Your task to perform on an android device: turn on the 24-hour format for clock Image 0: 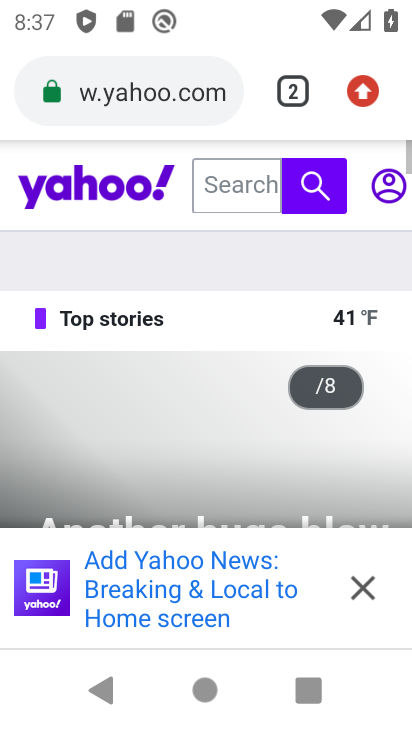
Step 0: press home button
Your task to perform on an android device: turn on the 24-hour format for clock Image 1: 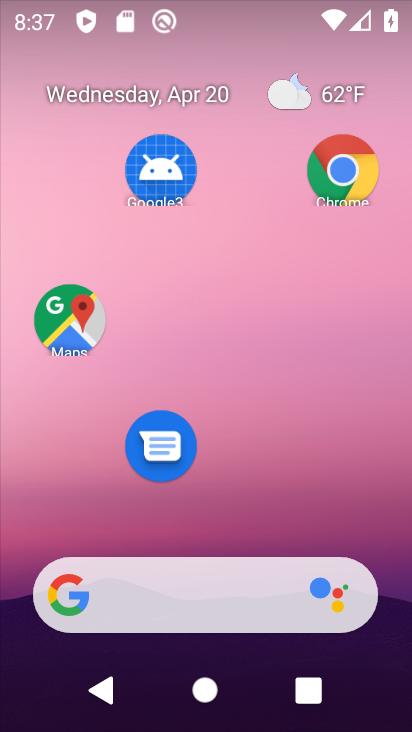
Step 1: drag from (227, 506) to (208, 68)
Your task to perform on an android device: turn on the 24-hour format for clock Image 2: 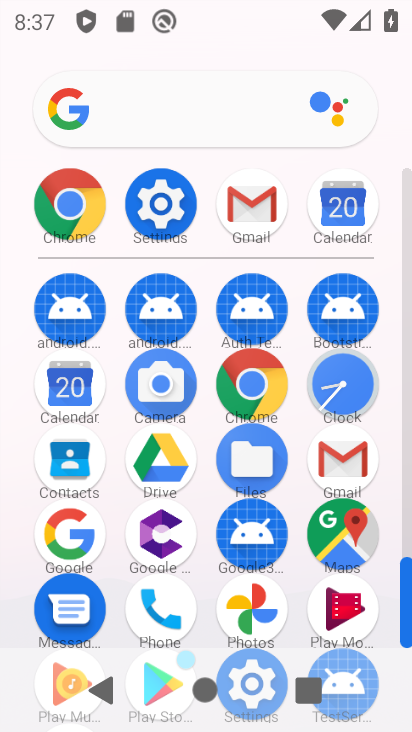
Step 2: click (343, 391)
Your task to perform on an android device: turn on the 24-hour format for clock Image 3: 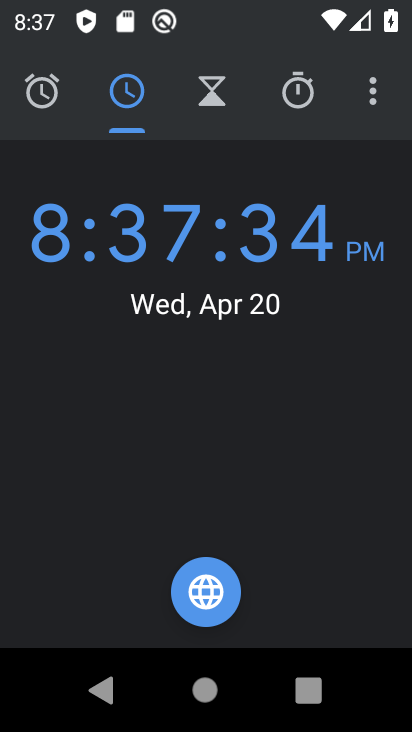
Step 3: click (370, 90)
Your task to perform on an android device: turn on the 24-hour format for clock Image 4: 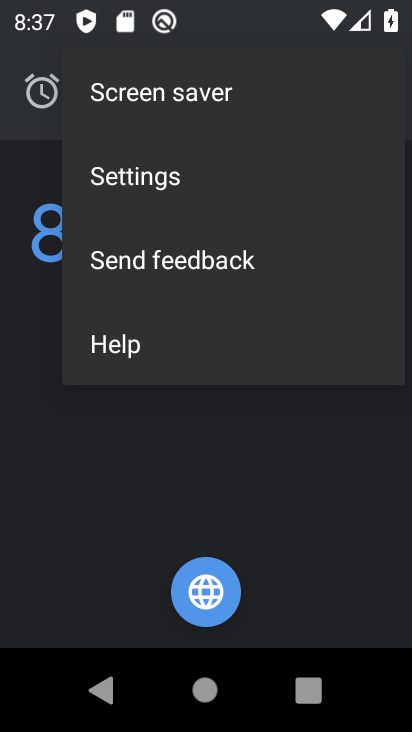
Step 4: click (165, 172)
Your task to perform on an android device: turn on the 24-hour format for clock Image 5: 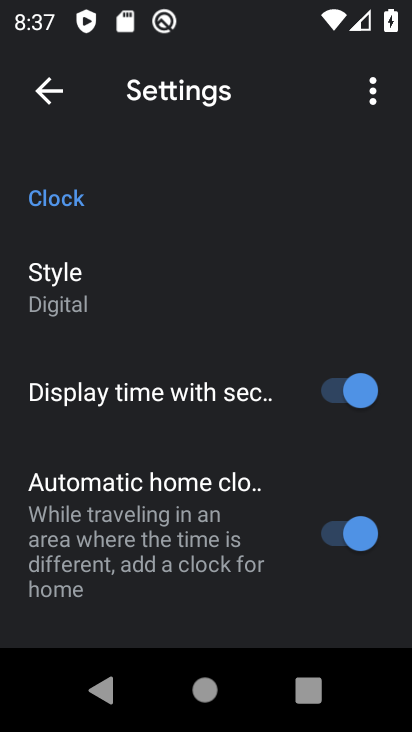
Step 5: drag from (238, 549) to (243, 243)
Your task to perform on an android device: turn on the 24-hour format for clock Image 6: 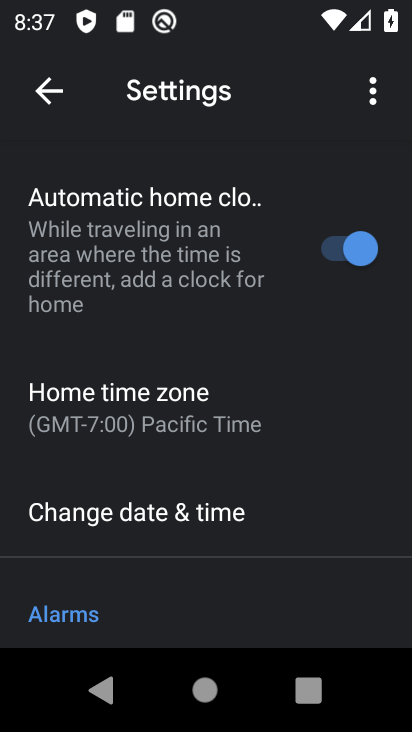
Step 6: click (216, 511)
Your task to perform on an android device: turn on the 24-hour format for clock Image 7: 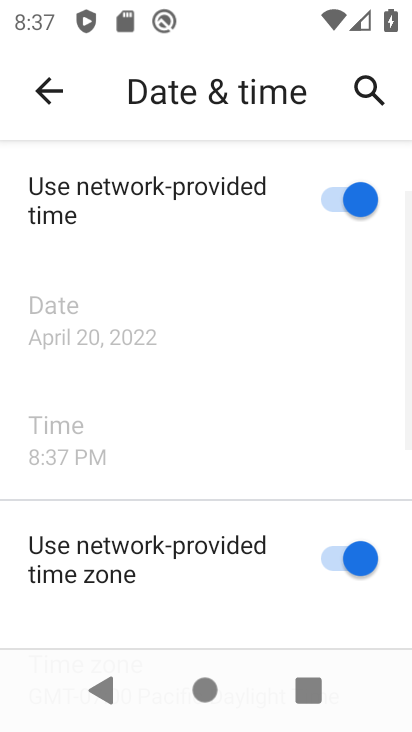
Step 7: drag from (234, 533) to (234, 102)
Your task to perform on an android device: turn on the 24-hour format for clock Image 8: 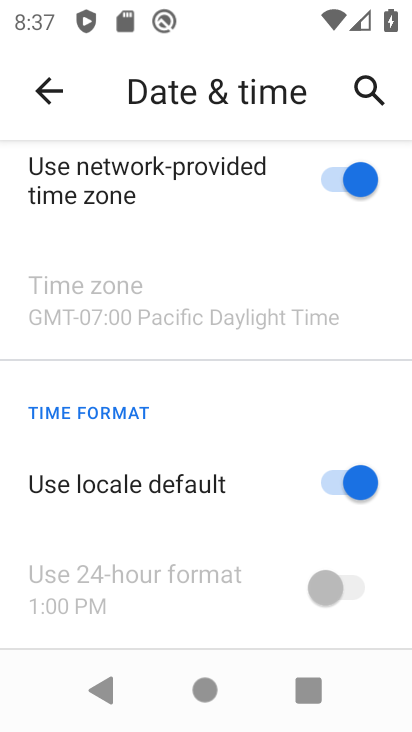
Step 8: click (352, 482)
Your task to perform on an android device: turn on the 24-hour format for clock Image 9: 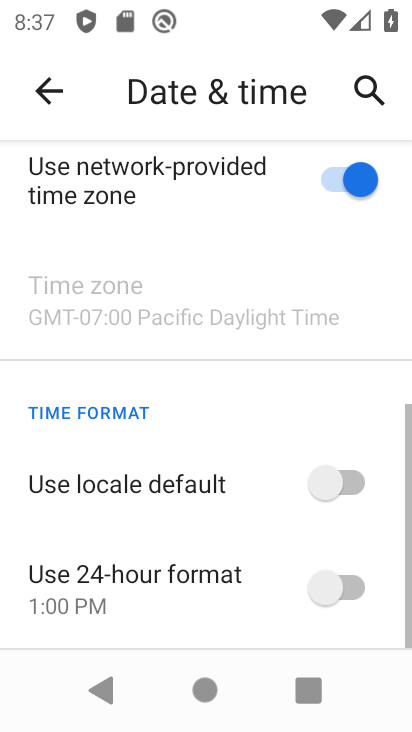
Step 9: click (328, 598)
Your task to perform on an android device: turn on the 24-hour format for clock Image 10: 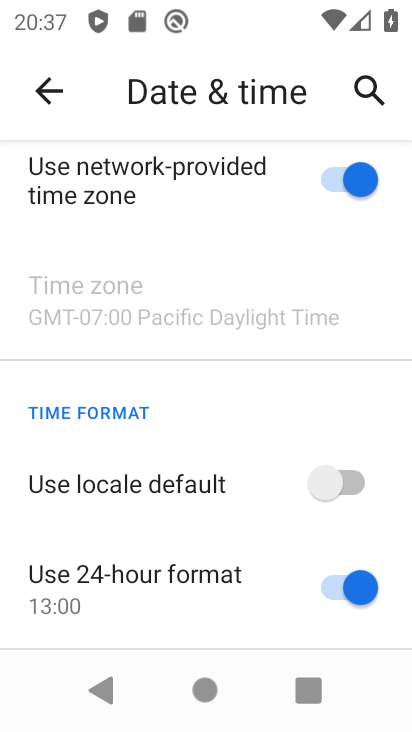
Step 10: task complete